Your task to perform on an android device: Go to privacy settings Image 0: 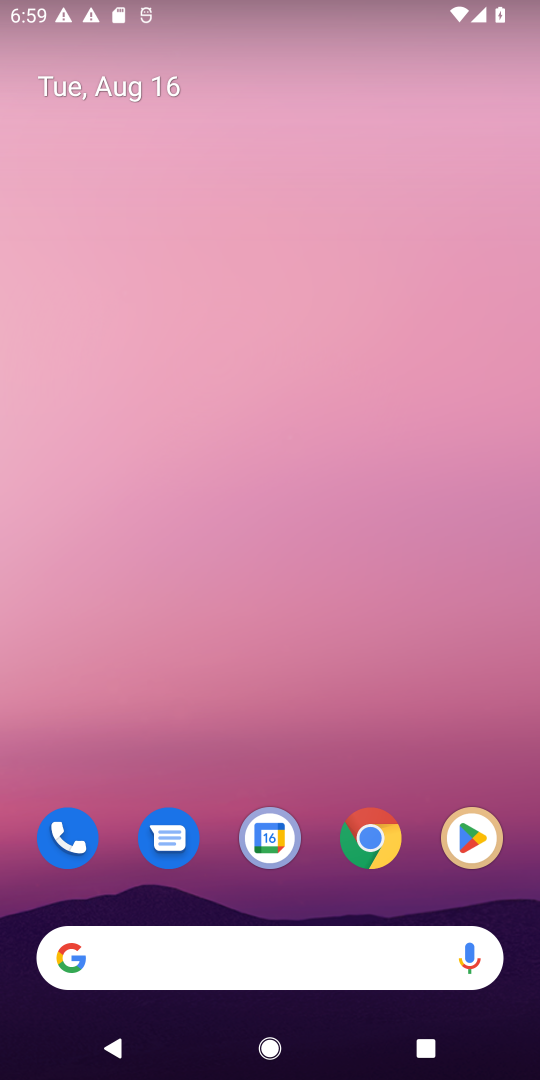
Step 0: drag from (315, 881) to (350, 17)
Your task to perform on an android device: Go to privacy settings Image 1: 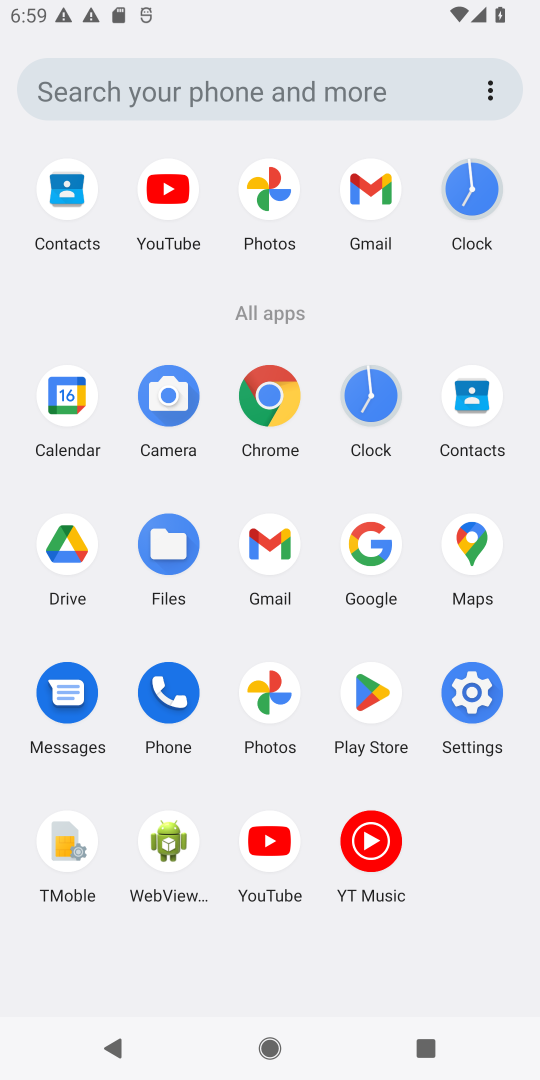
Step 1: click (468, 689)
Your task to perform on an android device: Go to privacy settings Image 2: 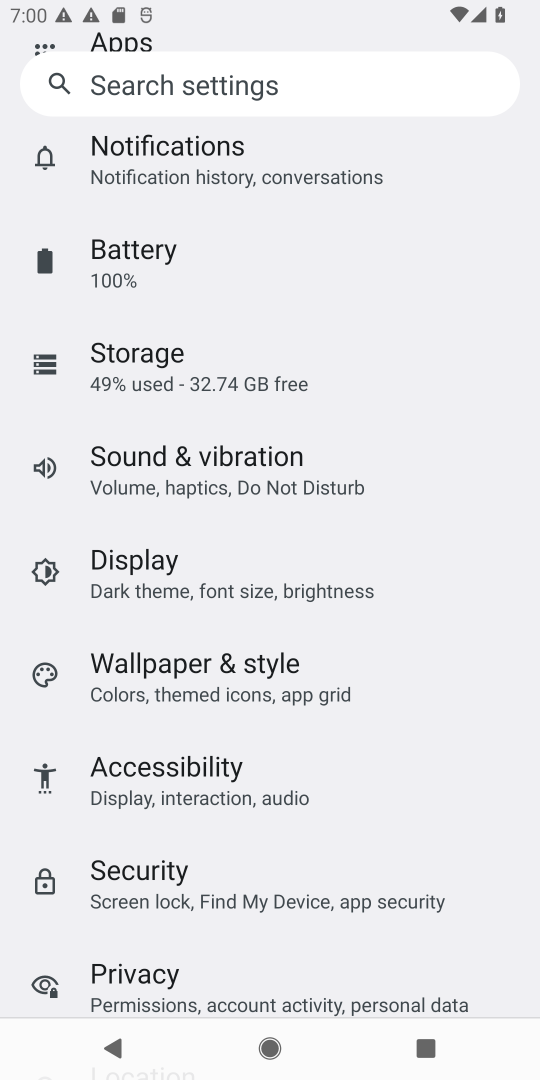
Step 2: click (191, 971)
Your task to perform on an android device: Go to privacy settings Image 3: 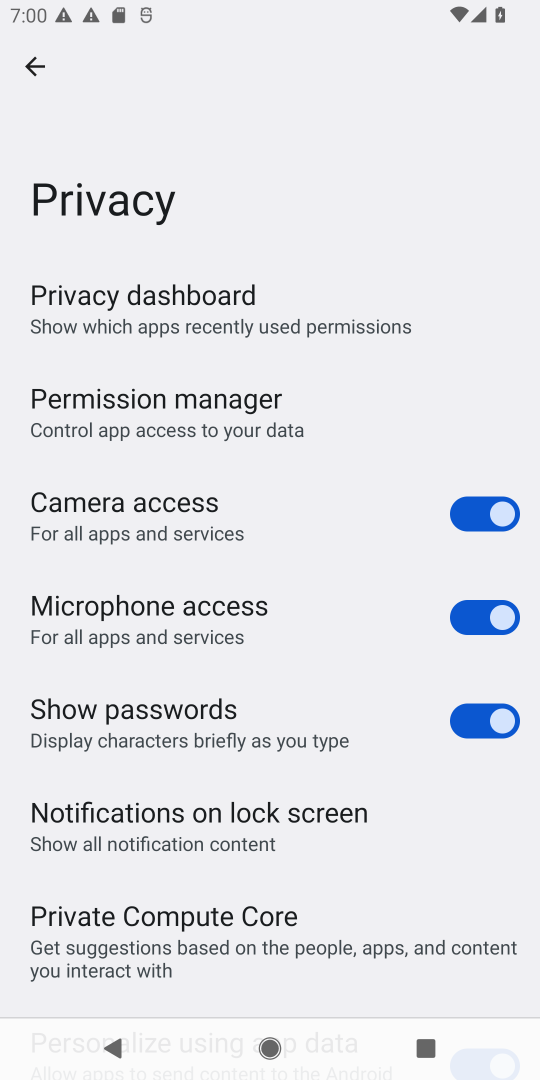
Step 3: task complete